Your task to perform on an android device: check battery use Image 0: 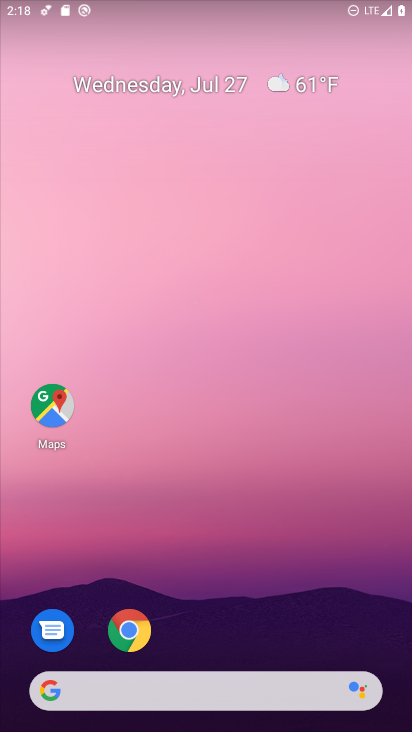
Step 0: drag from (297, 591) to (255, 126)
Your task to perform on an android device: check battery use Image 1: 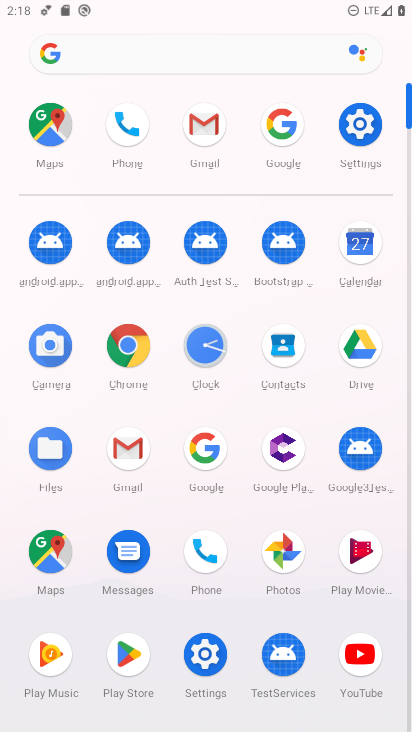
Step 1: click (363, 136)
Your task to perform on an android device: check battery use Image 2: 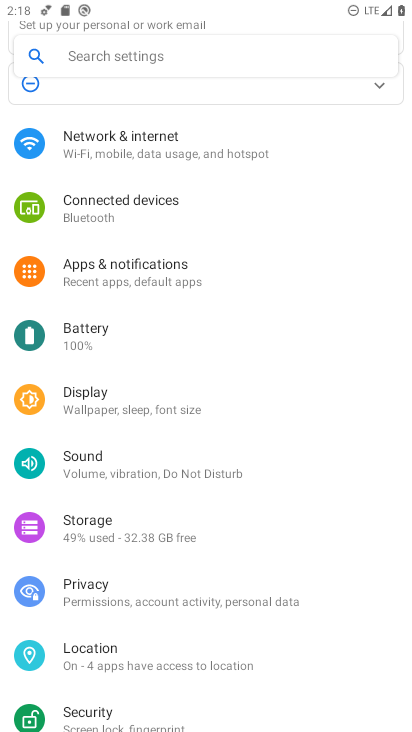
Step 2: click (146, 329)
Your task to perform on an android device: check battery use Image 3: 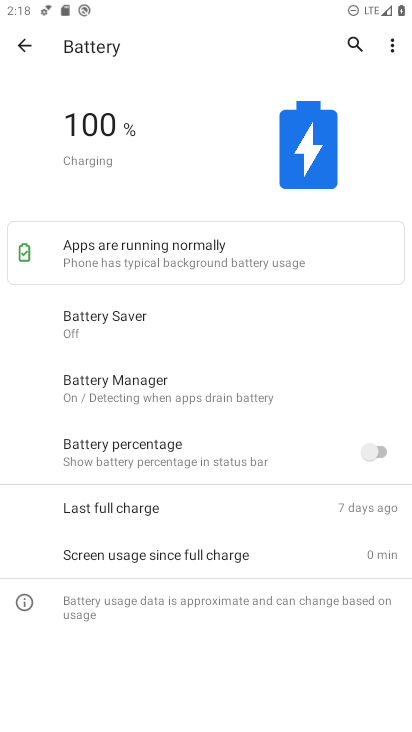
Step 3: task complete